Your task to perform on an android device: Search for the top rated book on goodreads. Image 0: 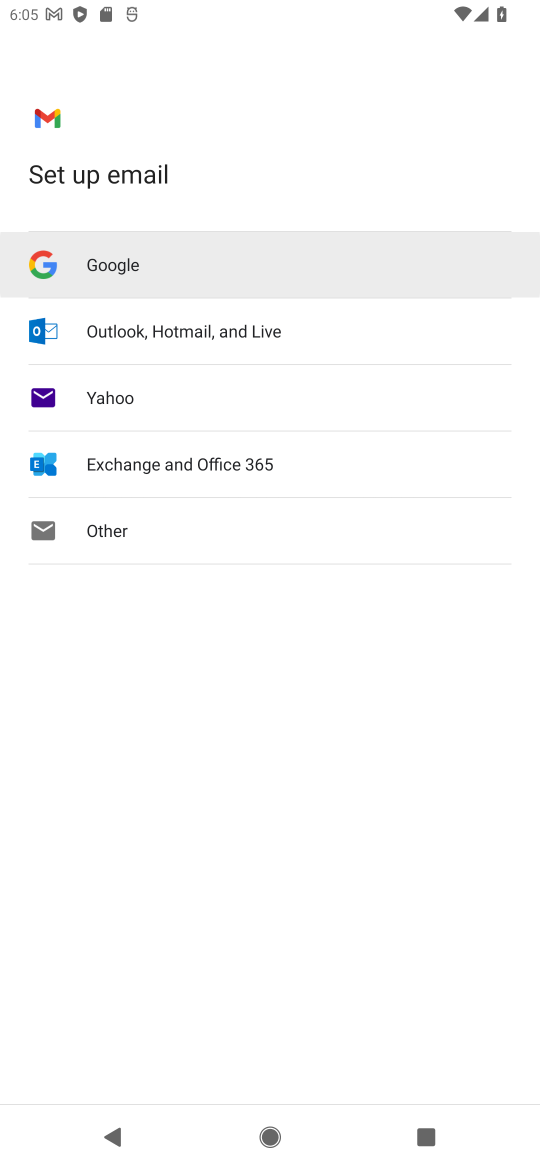
Step 0: press home button
Your task to perform on an android device: Search for the top rated book on goodreads. Image 1: 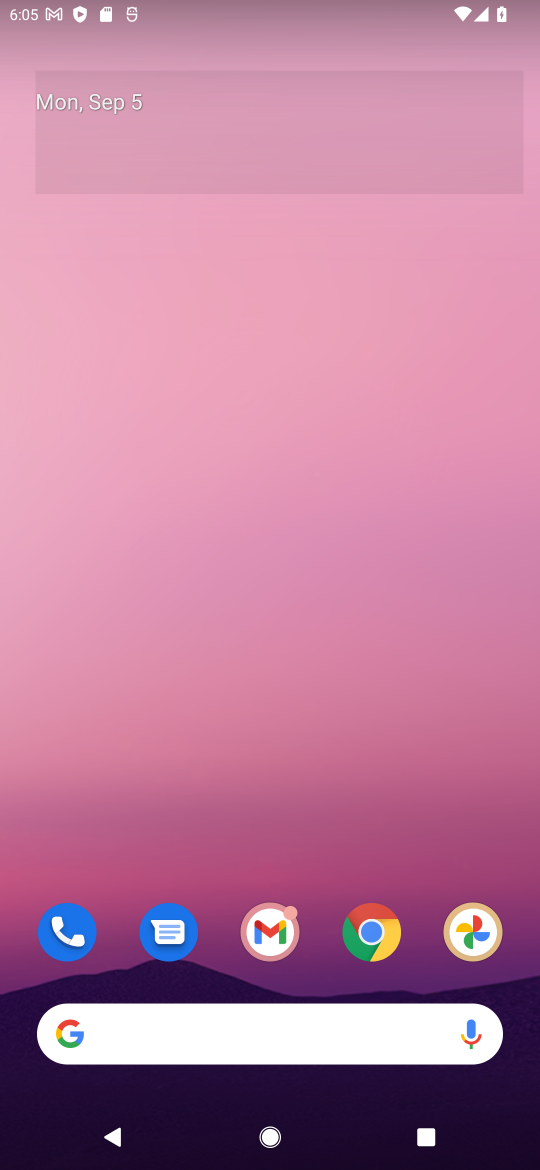
Step 1: drag from (310, 973) to (339, 13)
Your task to perform on an android device: Search for the top rated book on goodreads. Image 2: 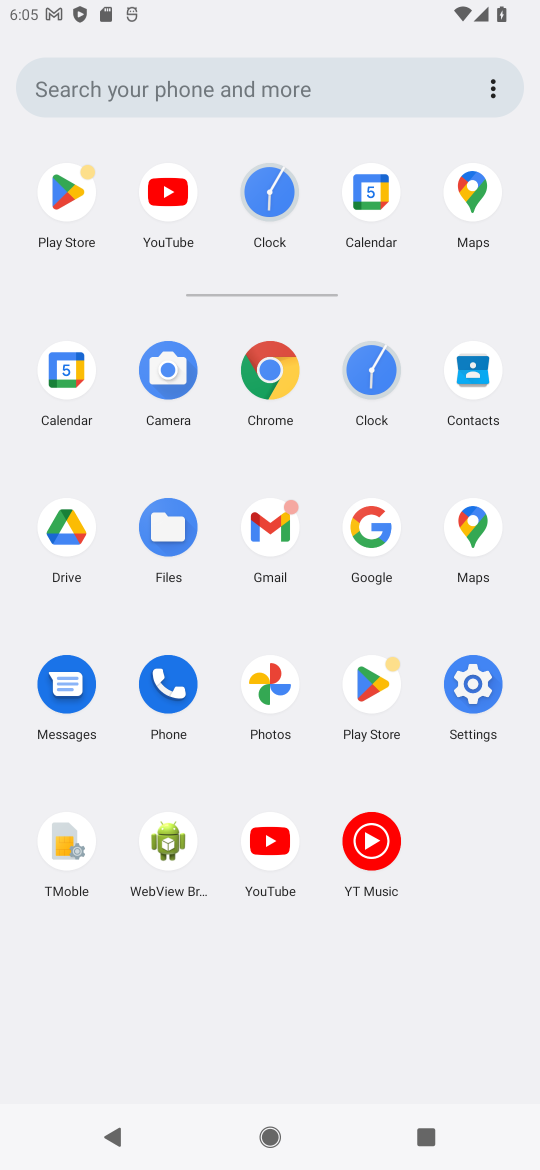
Step 2: click (368, 533)
Your task to perform on an android device: Search for the top rated book on goodreads. Image 3: 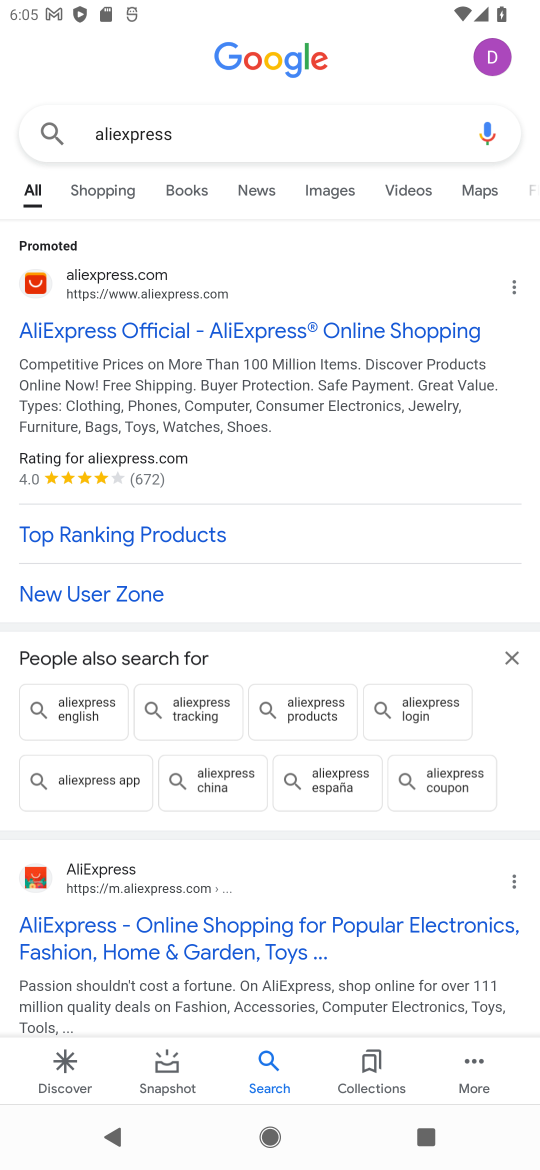
Step 3: click (208, 137)
Your task to perform on an android device: Search for the top rated book on goodreads. Image 4: 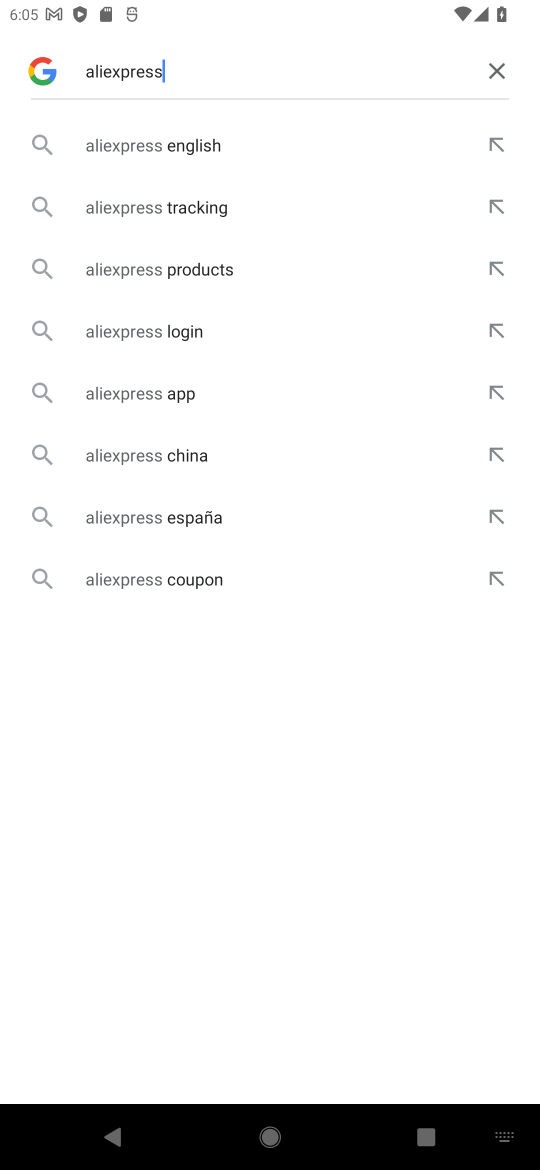
Step 4: click (495, 70)
Your task to perform on an android device: Search for the top rated book on goodreads. Image 5: 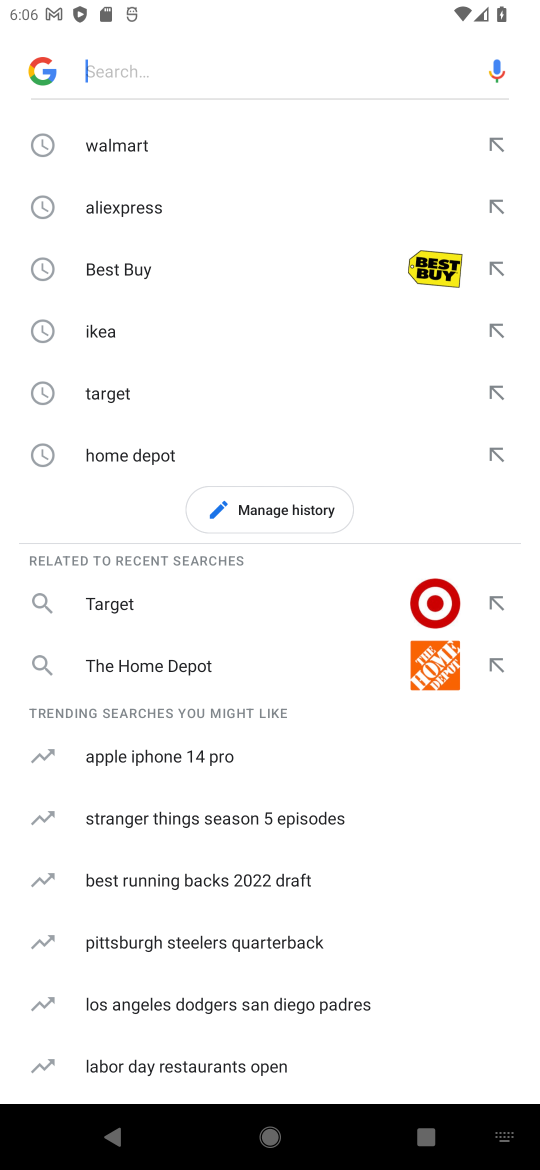
Step 5: type "goodreads"
Your task to perform on an android device: Search for the top rated book on goodreads. Image 6: 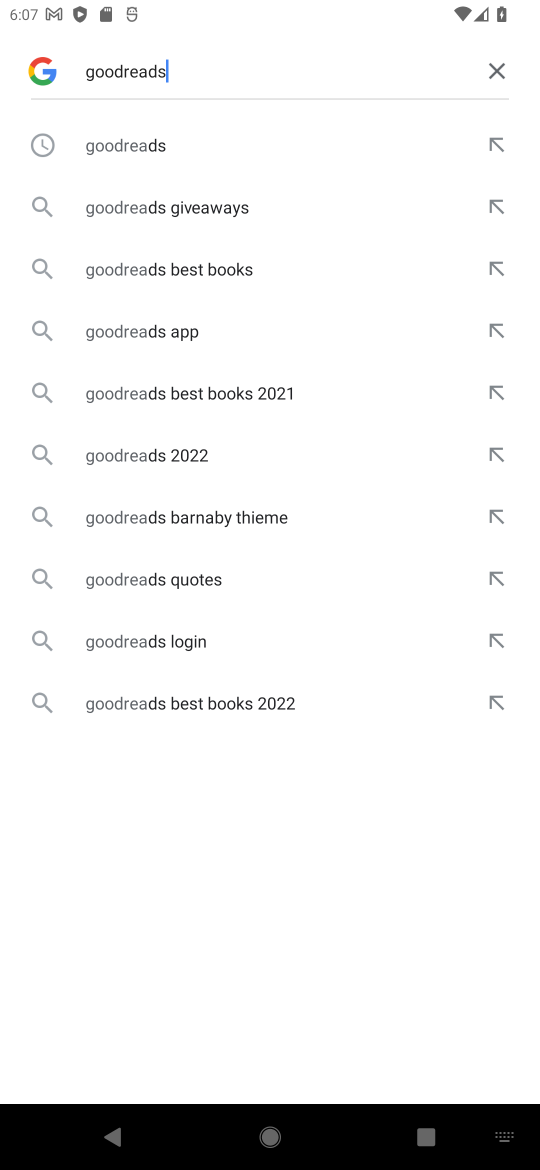
Step 6: type ""
Your task to perform on an android device: Search for the top rated book on goodreads. Image 7: 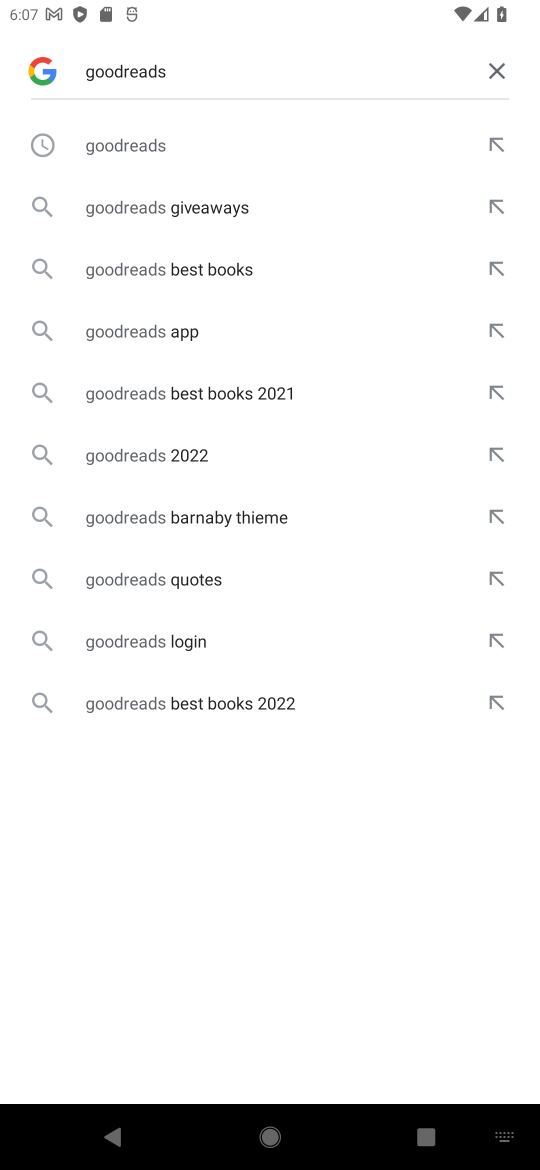
Step 7: click (107, 147)
Your task to perform on an android device: Search for the top rated book on goodreads. Image 8: 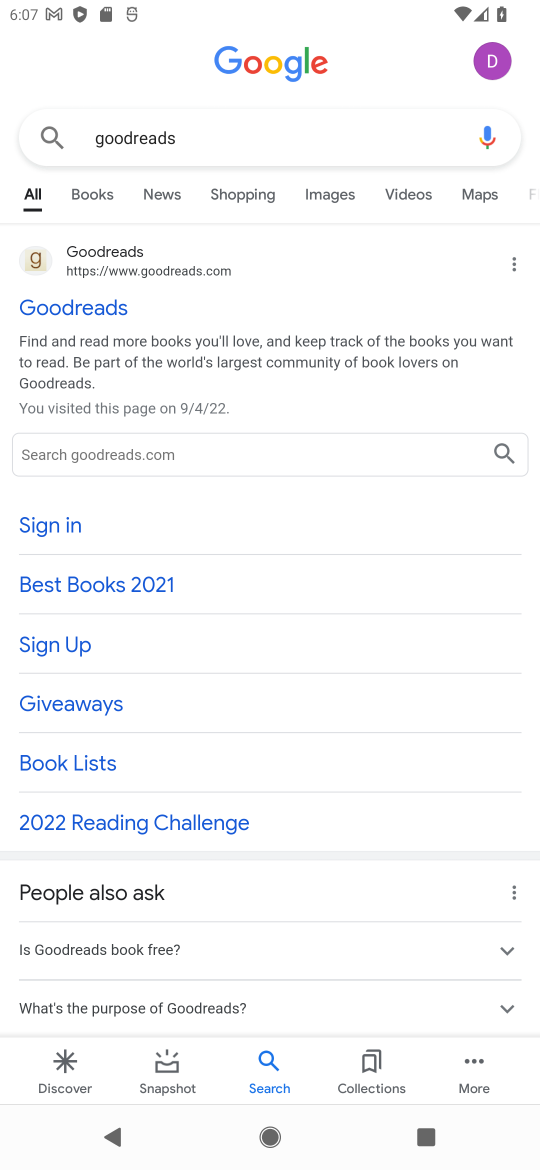
Step 8: click (102, 312)
Your task to perform on an android device: Search for the top rated book on goodreads. Image 9: 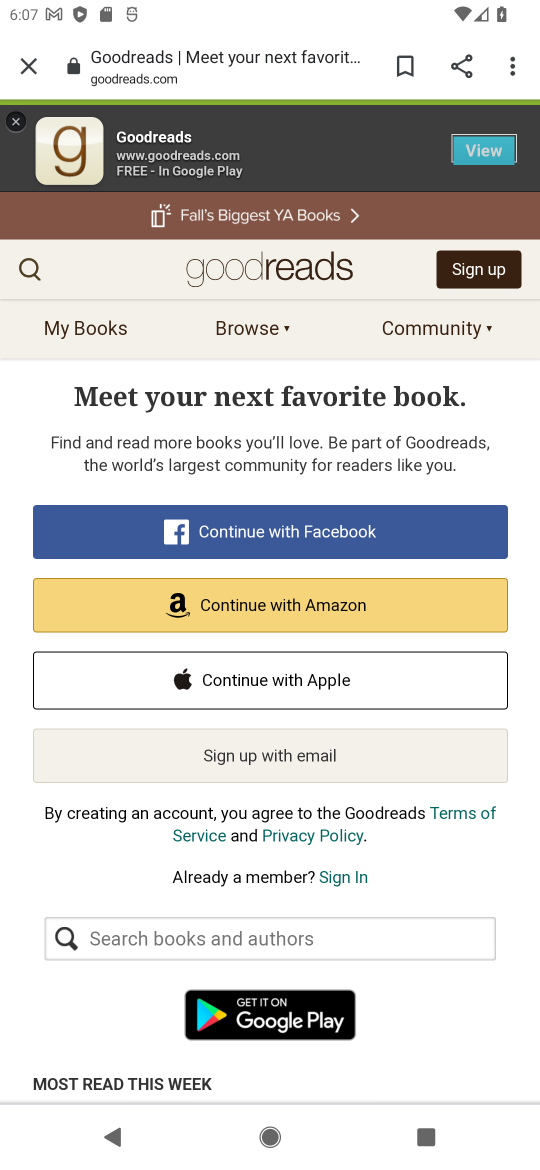
Step 9: click (34, 261)
Your task to perform on an android device: Search for the top rated book on goodreads. Image 10: 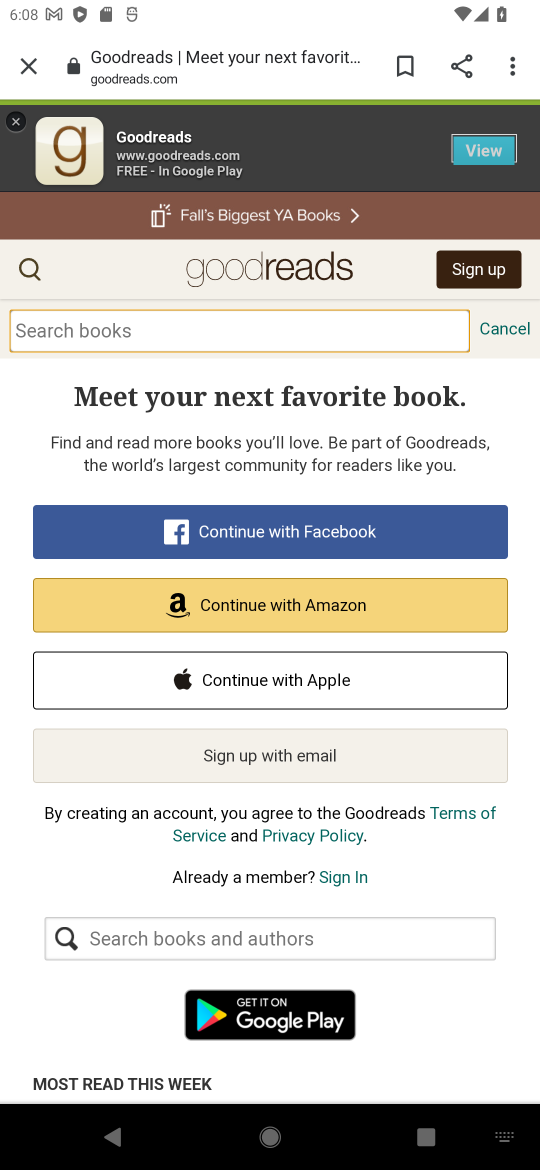
Step 10: click (197, 330)
Your task to perform on an android device: Search for the top rated book on goodreads. Image 11: 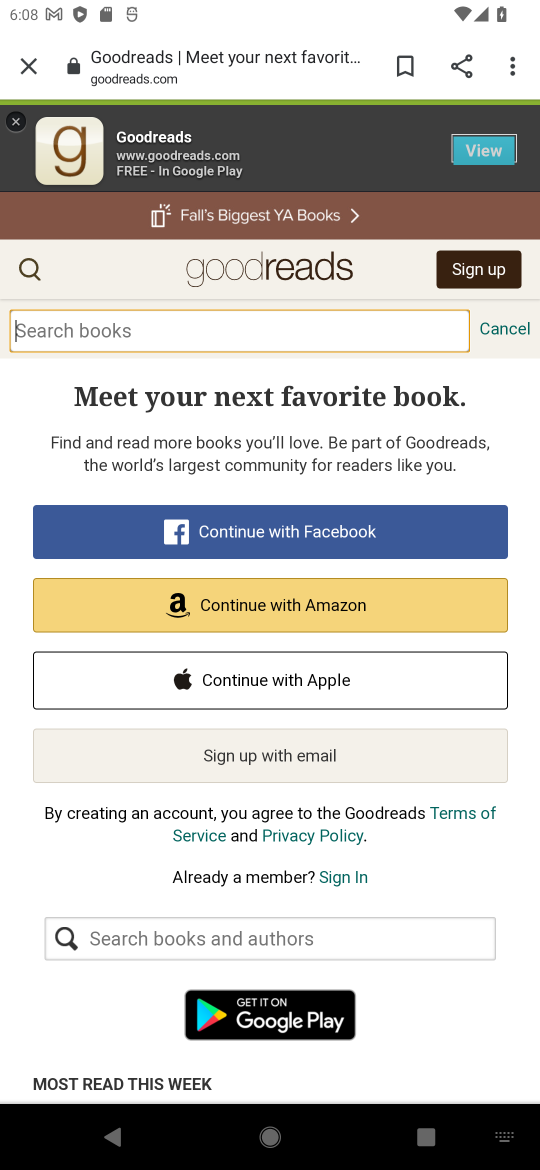
Step 11: type "top rated book"
Your task to perform on an android device: Search for the top rated book on goodreads. Image 12: 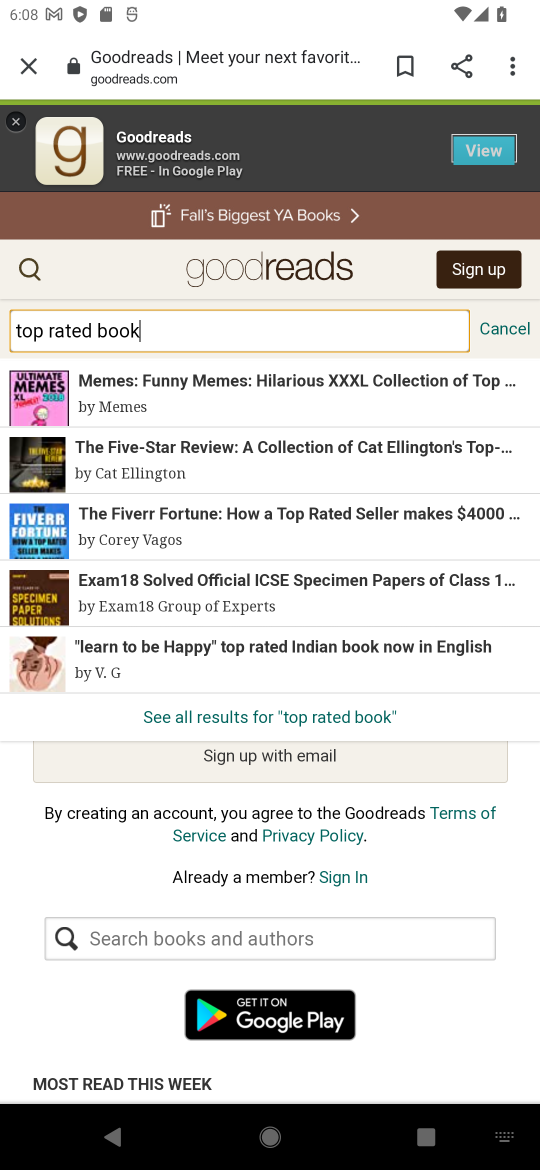
Step 12: click (287, 327)
Your task to perform on an android device: Search for the top rated book on goodreads. Image 13: 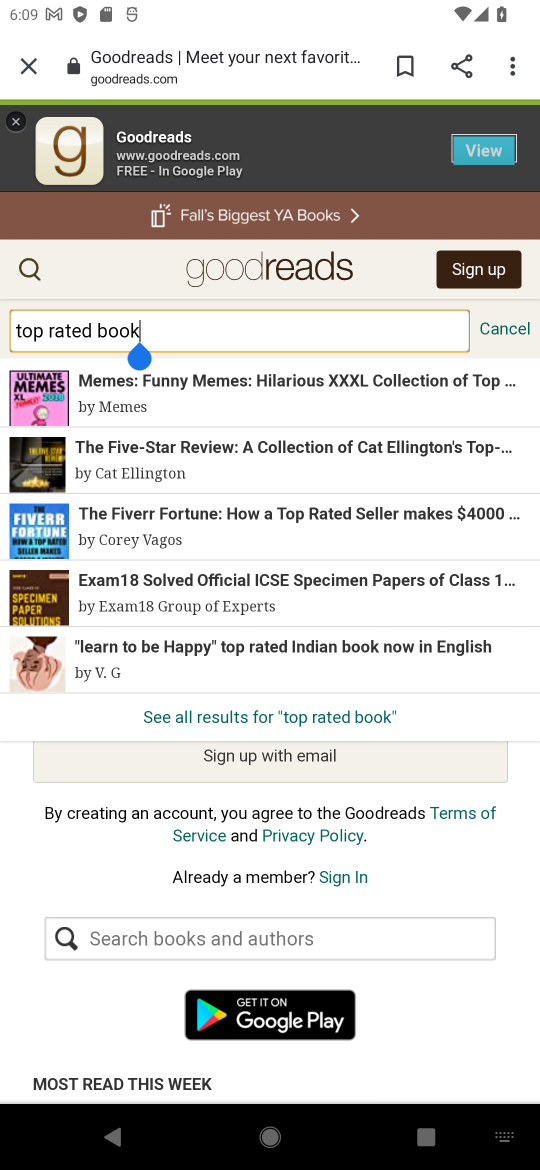
Step 13: click (380, 340)
Your task to perform on an android device: Search for the top rated book on goodreads. Image 14: 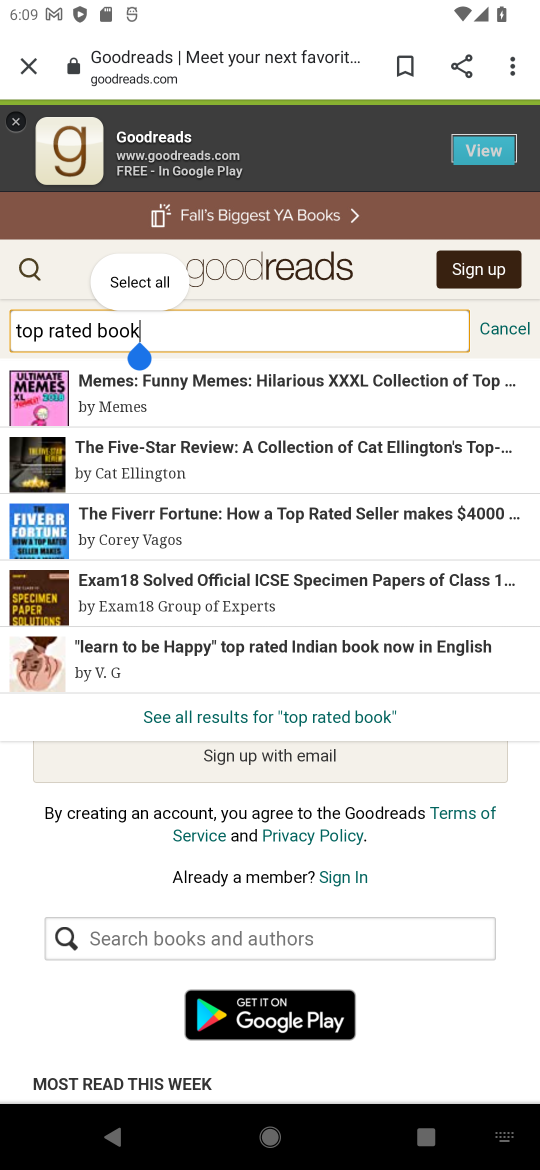
Step 14: click (419, 331)
Your task to perform on an android device: Search for the top rated book on goodreads. Image 15: 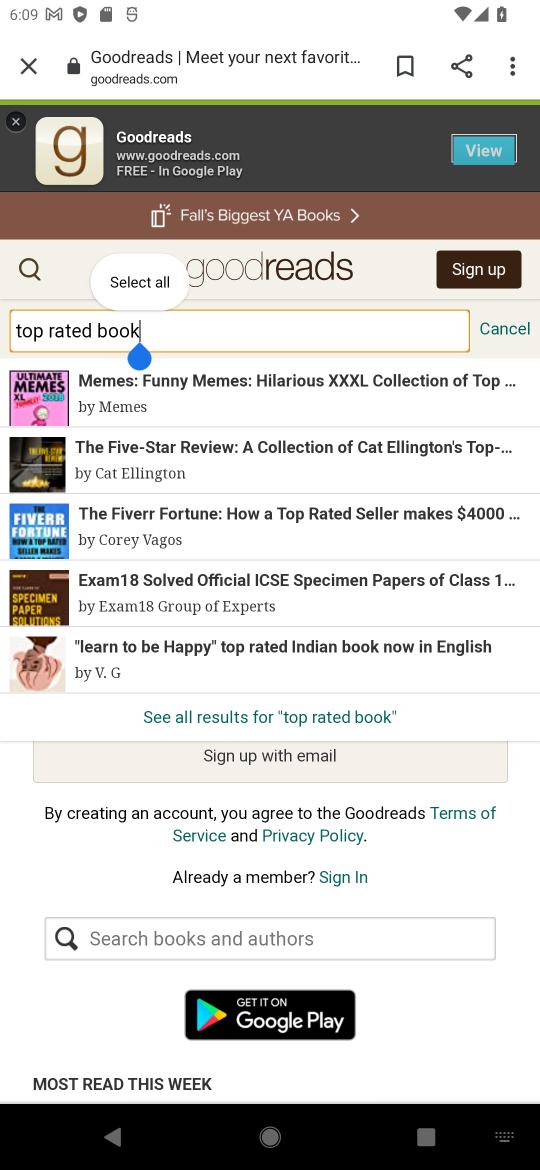
Step 15: click (419, 331)
Your task to perform on an android device: Search for the top rated book on goodreads. Image 16: 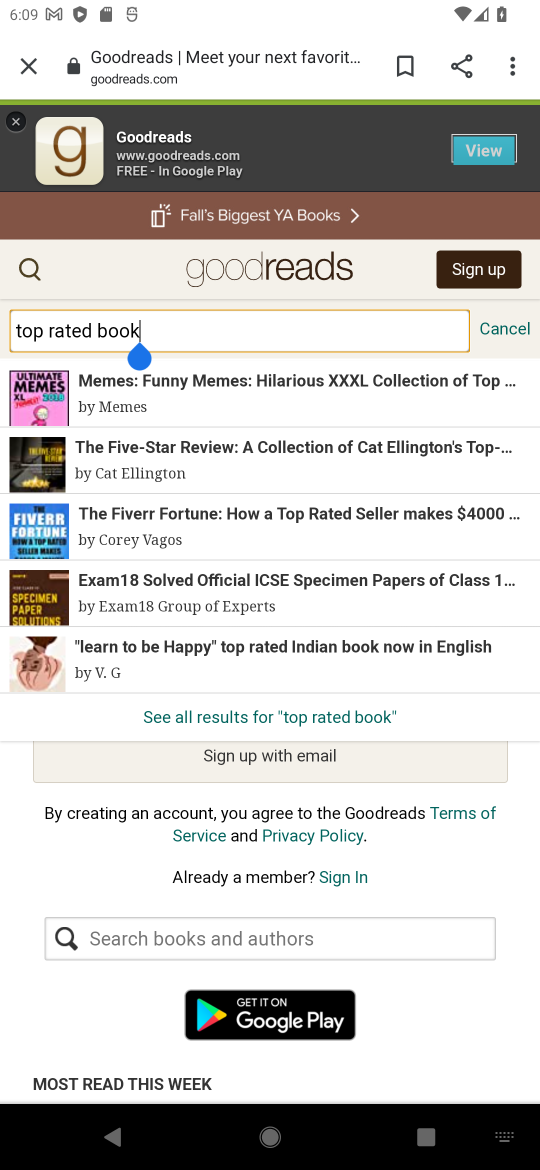
Step 16: click (239, 711)
Your task to perform on an android device: Search for the top rated book on goodreads. Image 17: 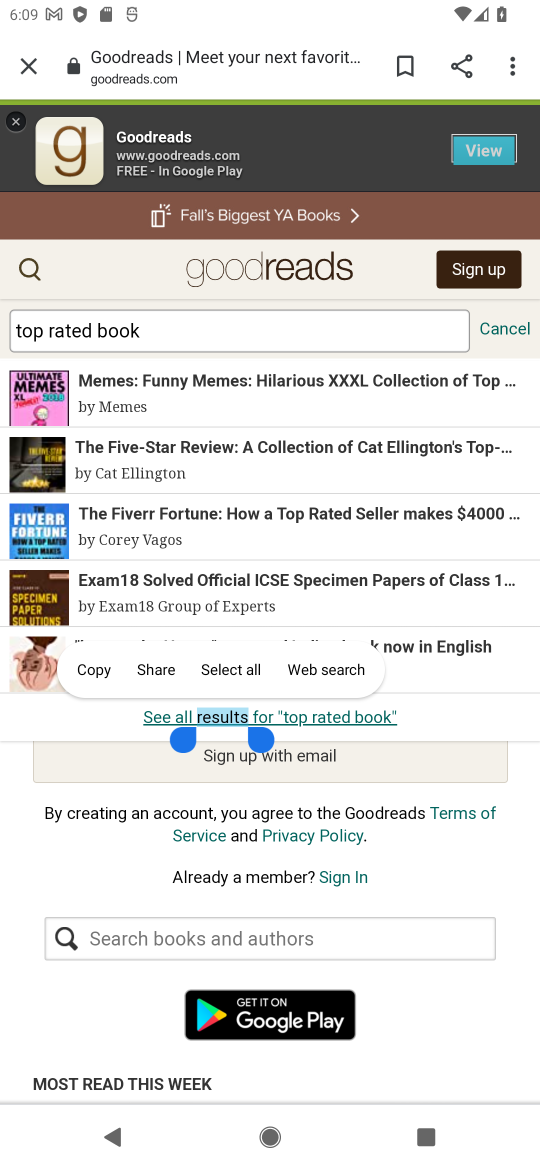
Step 17: click (346, 712)
Your task to perform on an android device: Search for the top rated book on goodreads. Image 18: 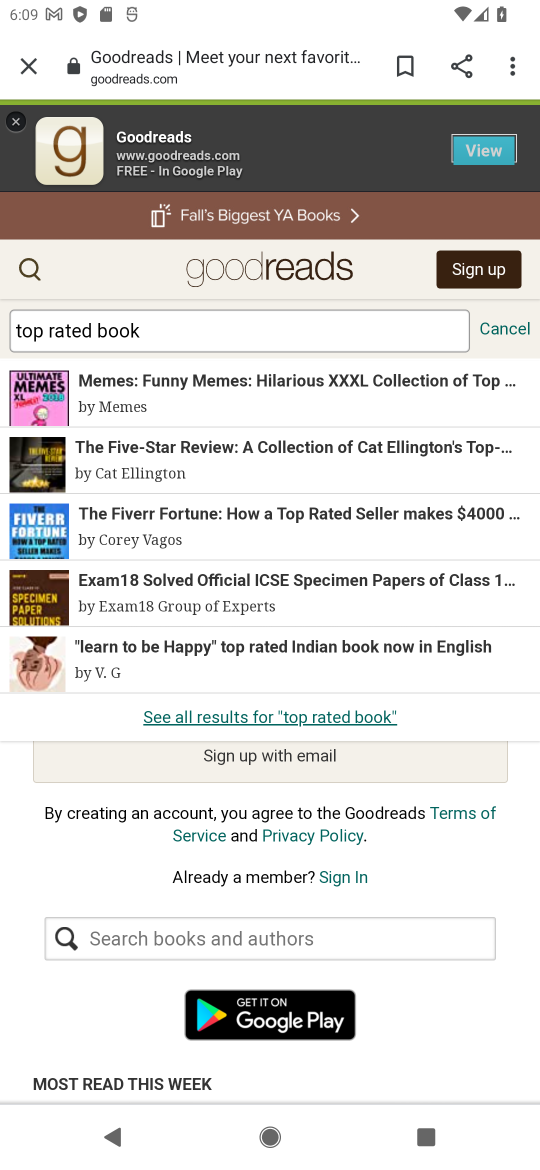
Step 18: click (340, 712)
Your task to perform on an android device: Search for the top rated book on goodreads. Image 19: 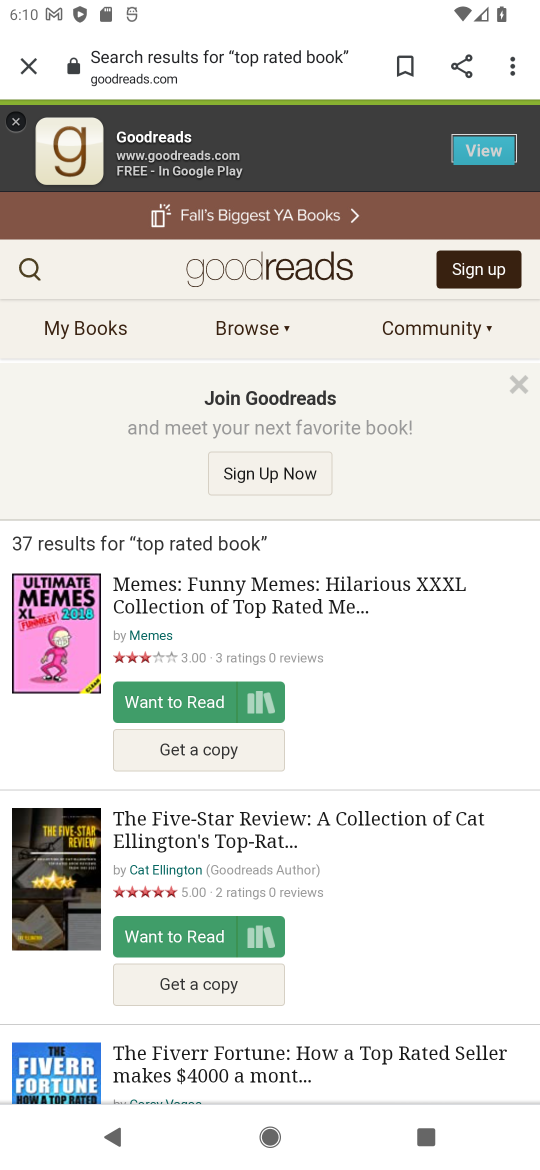
Step 19: task complete